Your task to perform on an android device: check storage Image 0: 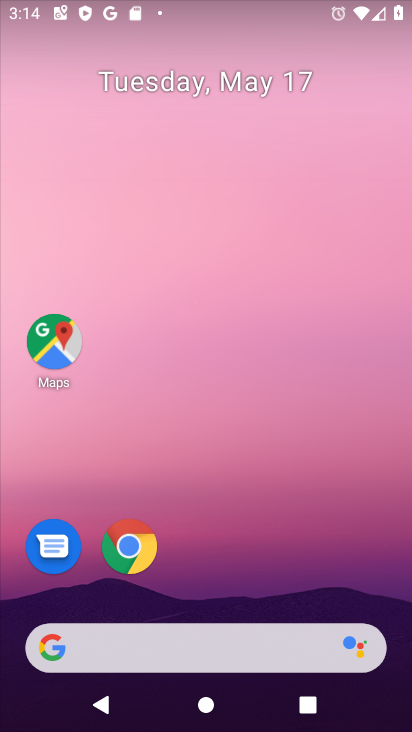
Step 0: drag from (397, 658) to (342, 310)
Your task to perform on an android device: check storage Image 1: 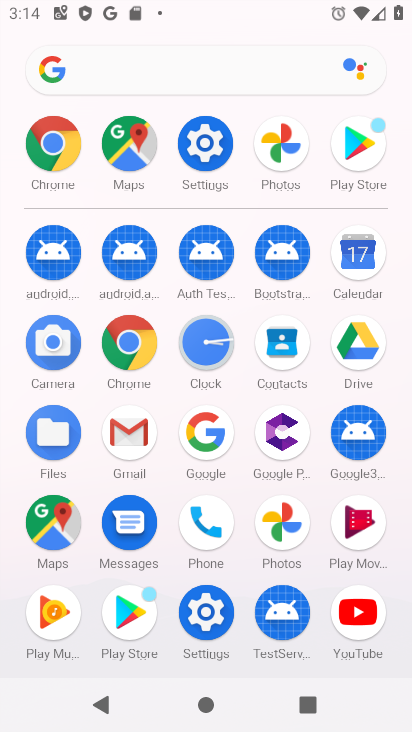
Step 1: click (209, 616)
Your task to perform on an android device: check storage Image 2: 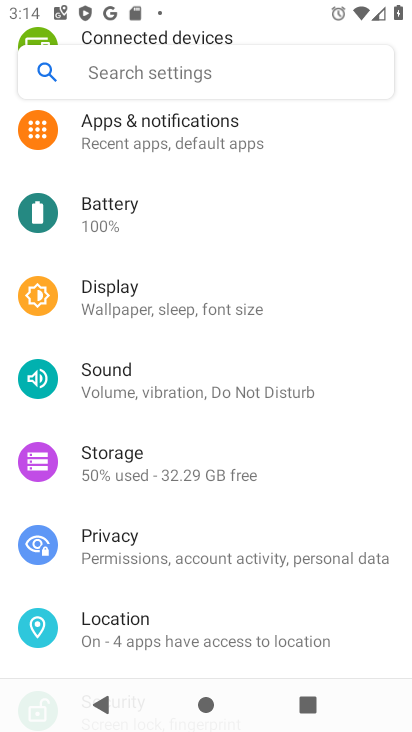
Step 2: click (113, 445)
Your task to perform on an android device: check storage Image 3: 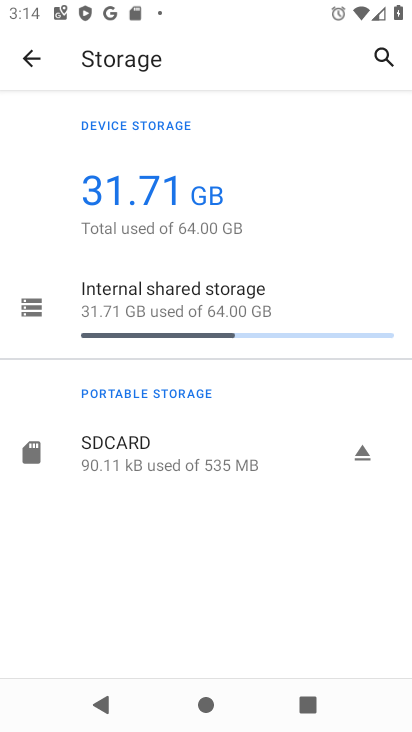
Step 3: task complete